Your task to perform on an android device: What is the recent news? Image 0: 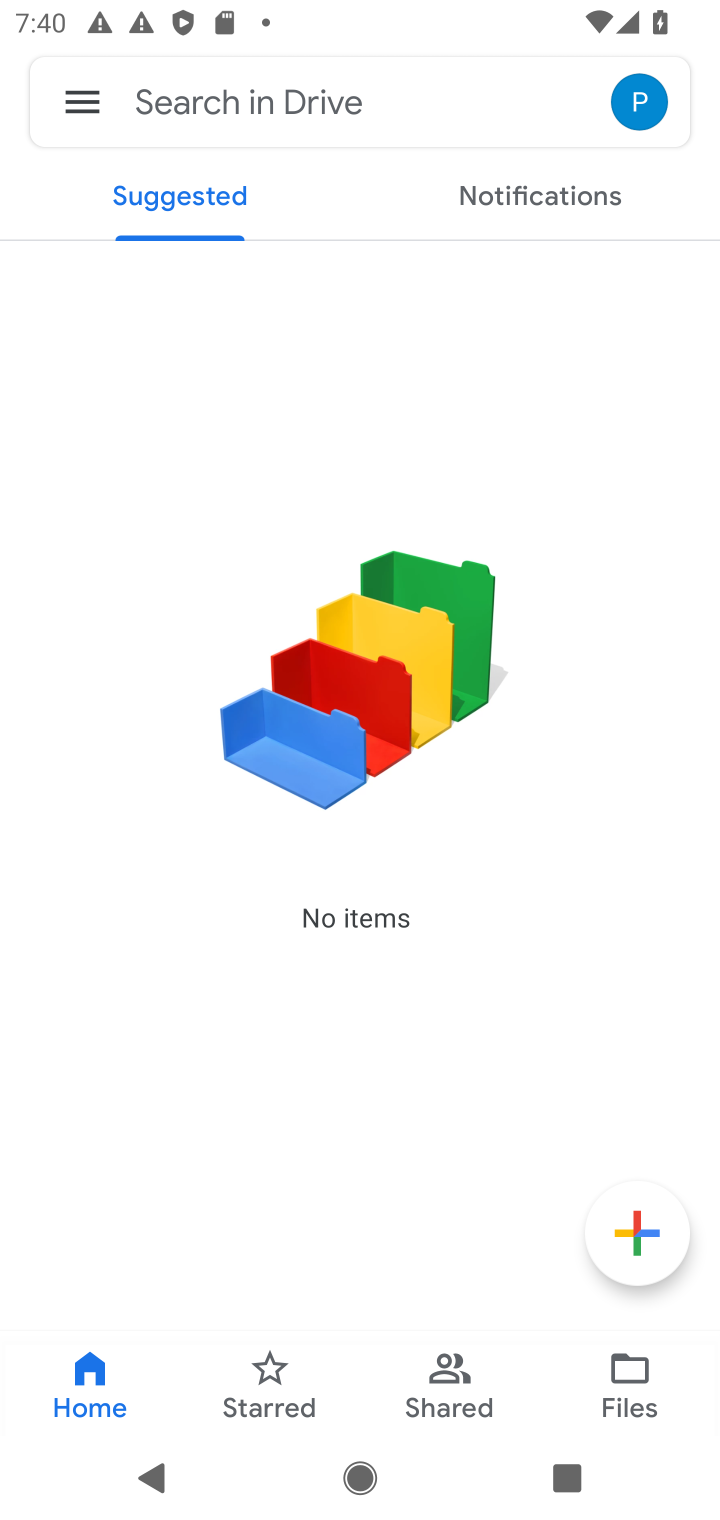
Step 0: press home button
Your task to perform on an android device: What is the recent news? Image 1: 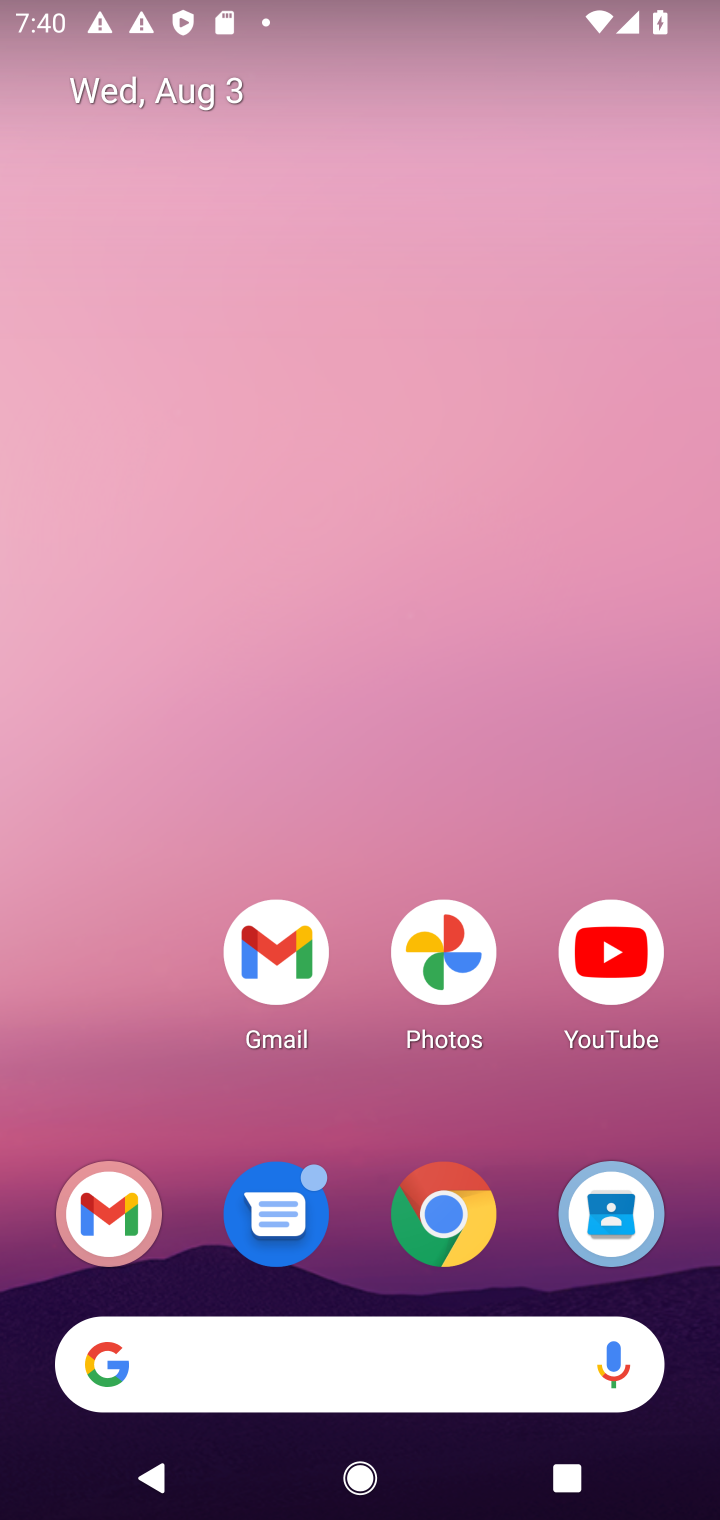
Step 1: drag from (347, 1275) to (322, 288)
Your task to perform on an android device: What is the recent news? Image 2: 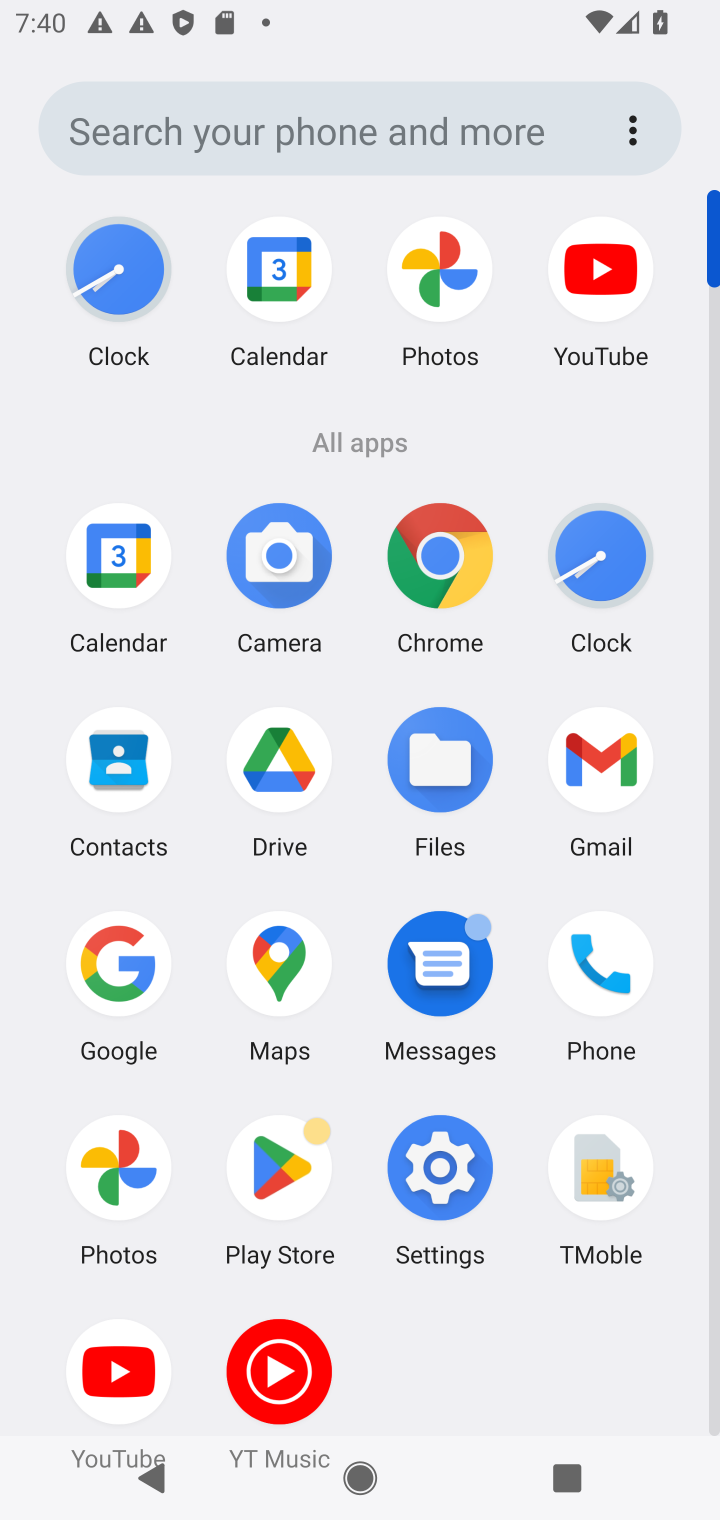
Step 2: click (108, 965)
Your task to perform on an android device: What is the recent news? Image 3: 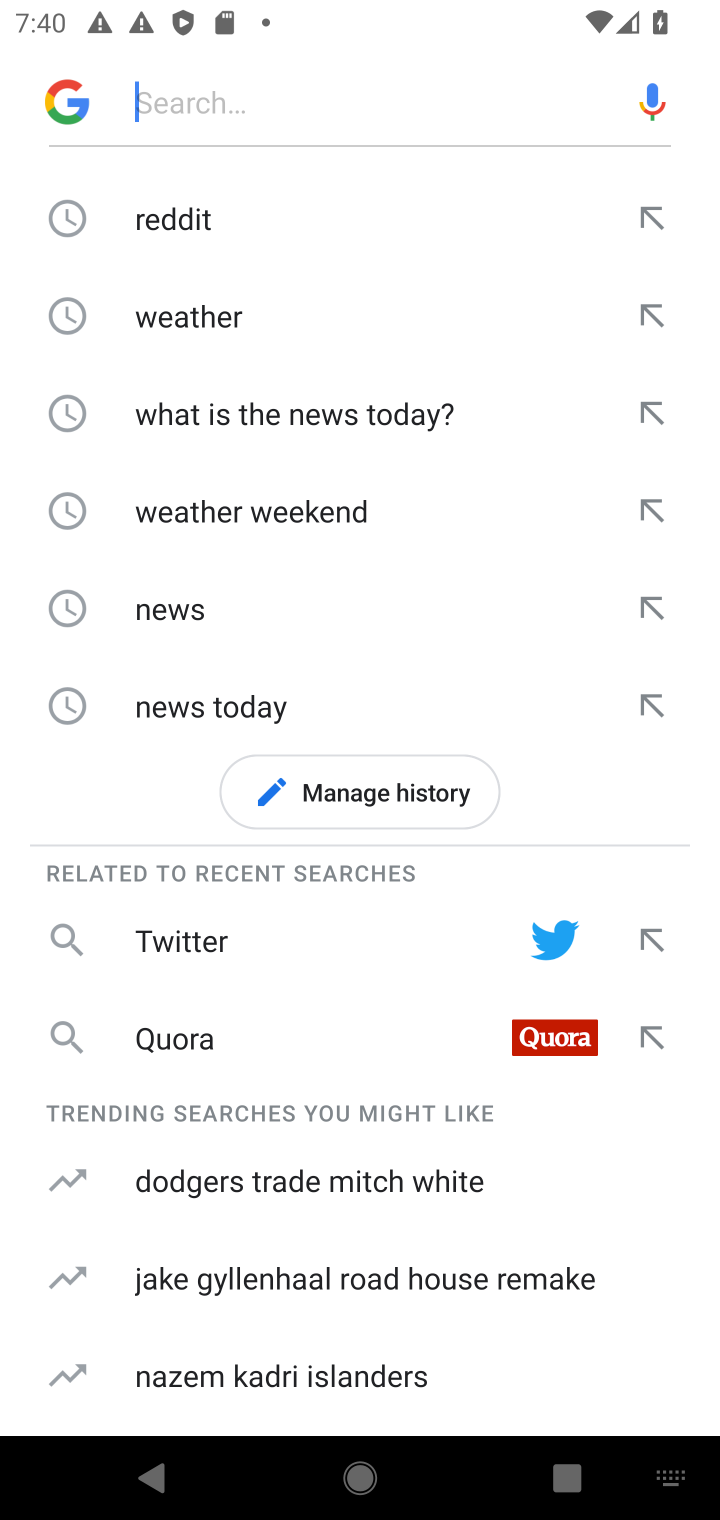
Step 3: click (220, 93)
Your task to perform on an android device: What is the recent news? Image 4: 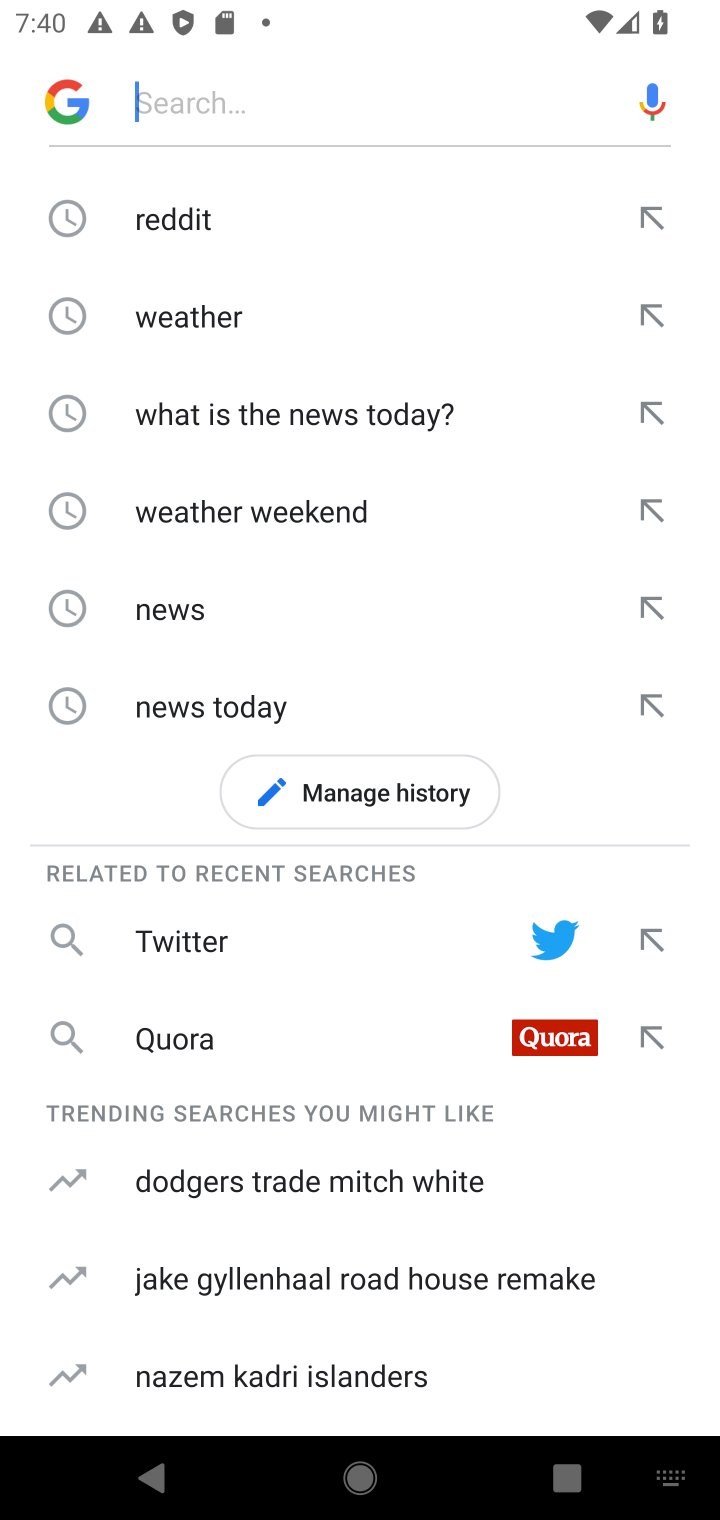
Step 4: click (185, 710)
Your task to perform on an android device: What is the recent news? Image 5: 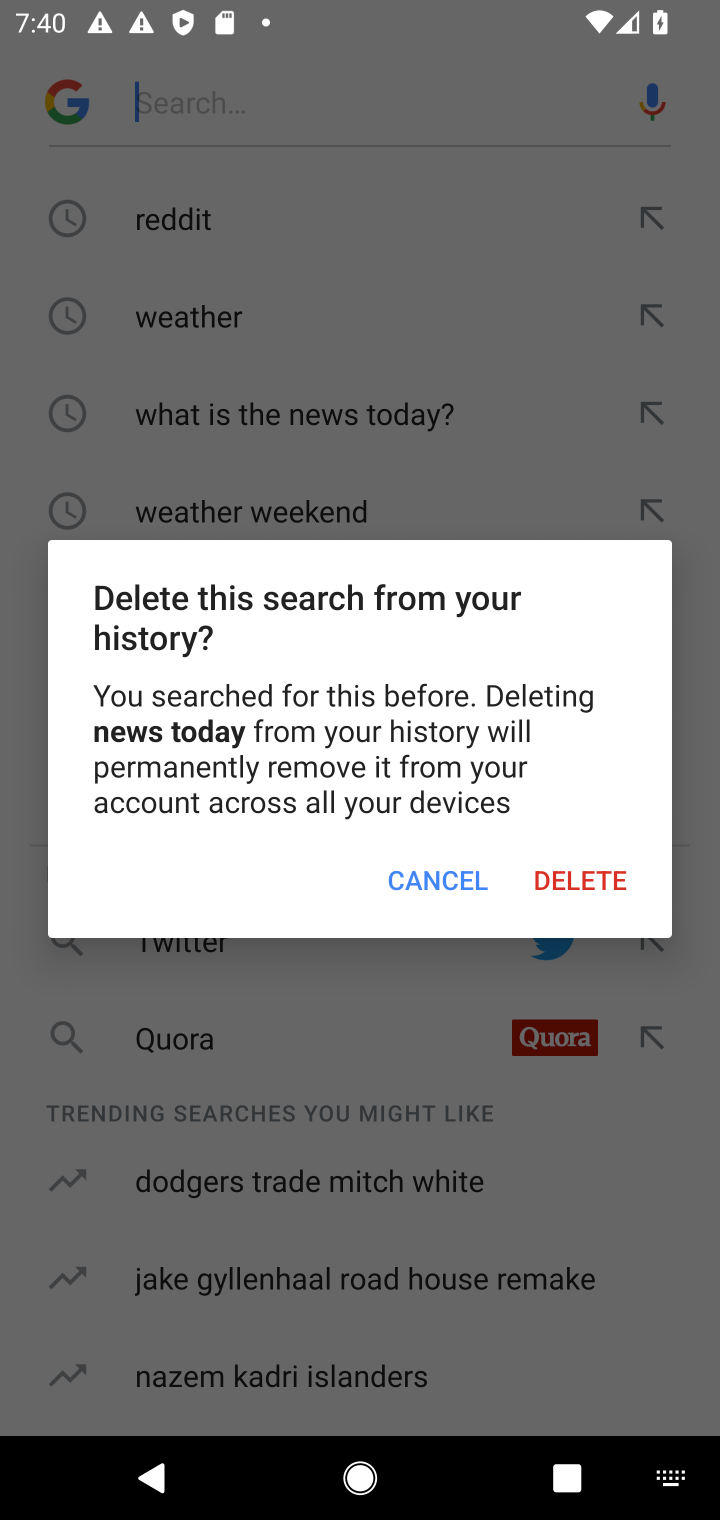
Step 5: click (436, 884)
Your task to perform on an android device: What is the recent news? Image 6: 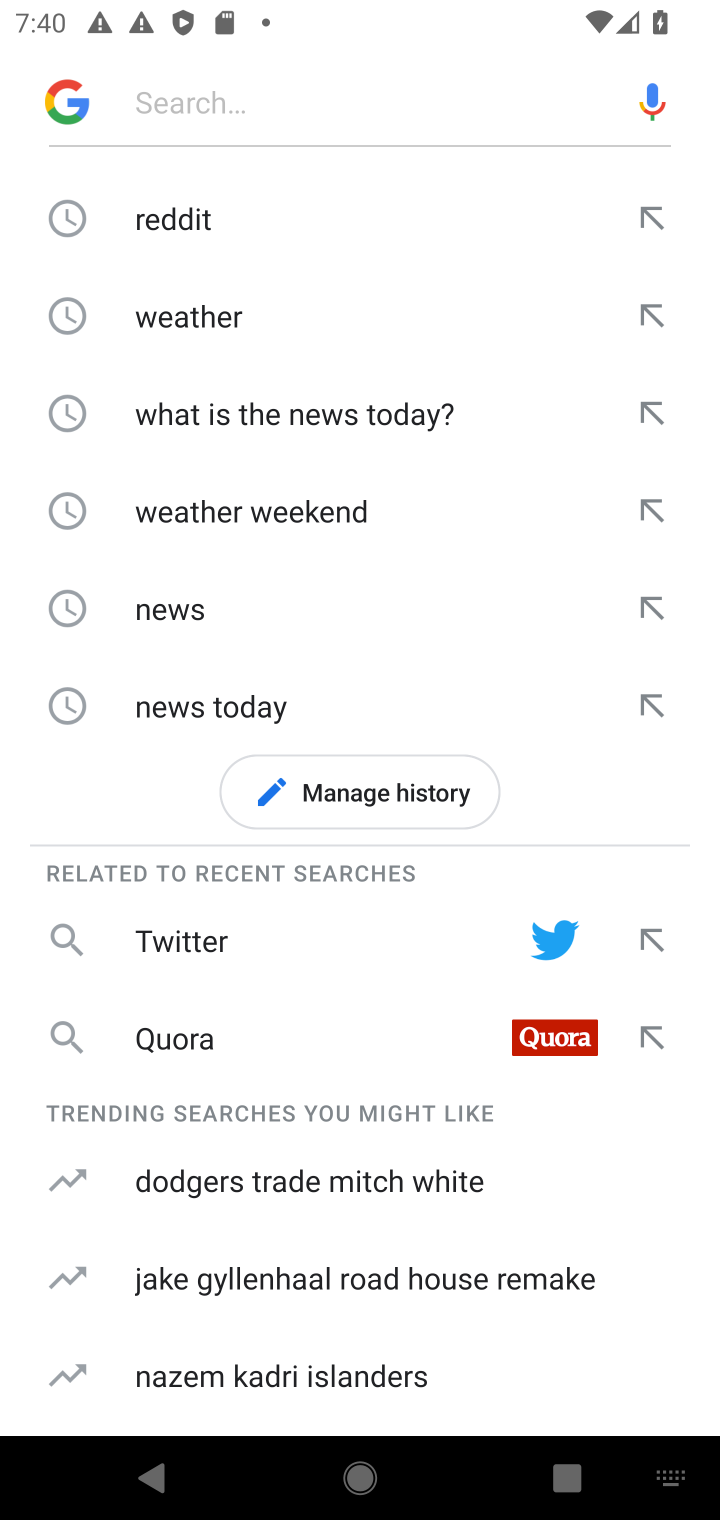
Step 6: click (161, 709)
Your task to perform on an android device: What is the recent news? Image 7: 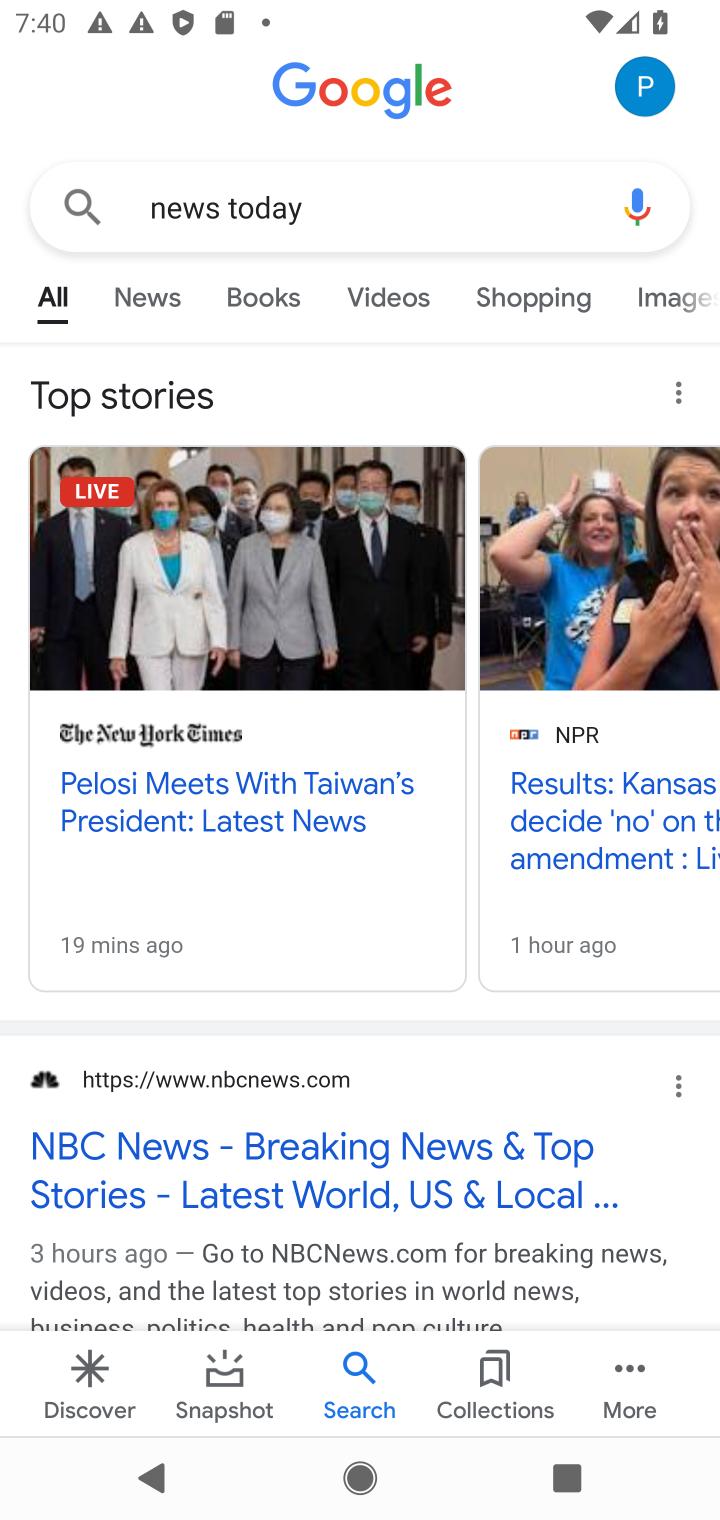
Step 7: task complete